Your task to perform on an android device: When is my next appointment? Image 0: 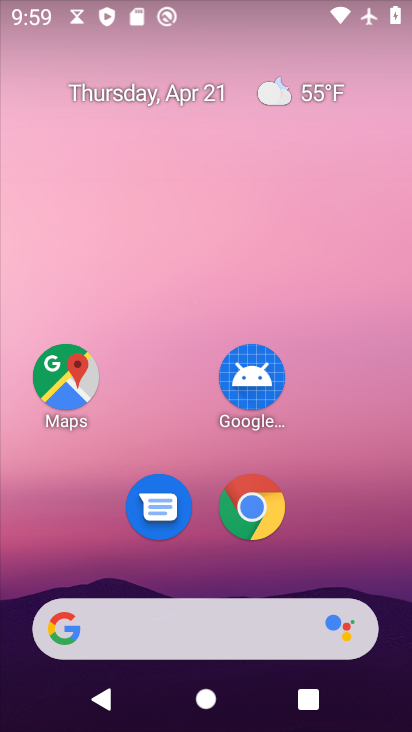
Step 0: drag from (316, 543) to (310, 68)
Your task to perform on an android device: When is my next appointment? Image 1: 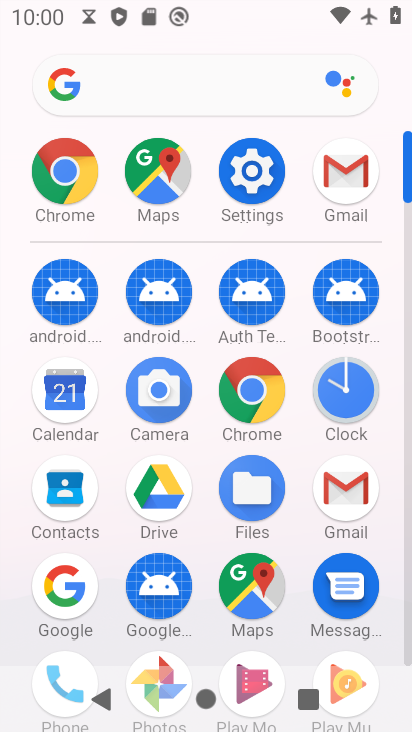
Step 1: click (74, 389)
Your task to perform on an android device: When is my next appointment? Image 2: 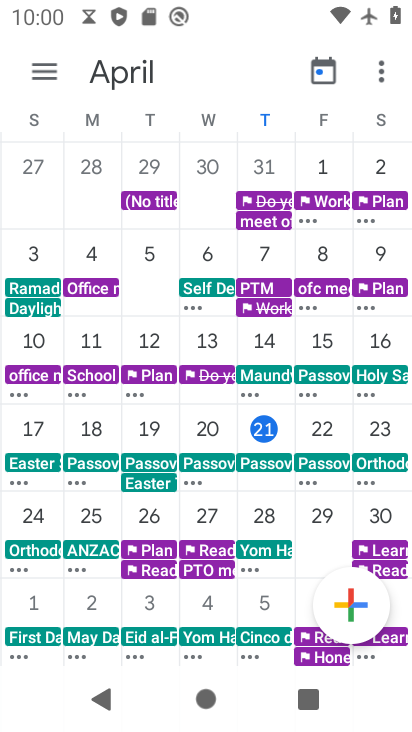
Step 2: click (328, 420)
Your task to perform on an android device: When is my next appointment? Image 3: 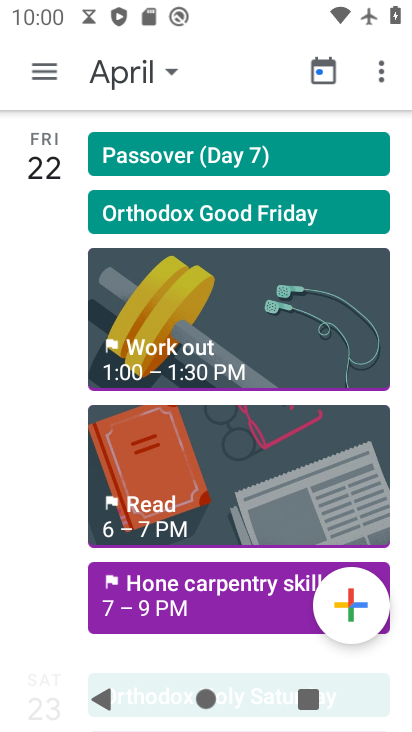
Step 3: task complete